Your task to perform on an android device: Add dell xps to the cart on walmart, then select checkout. Image 0: 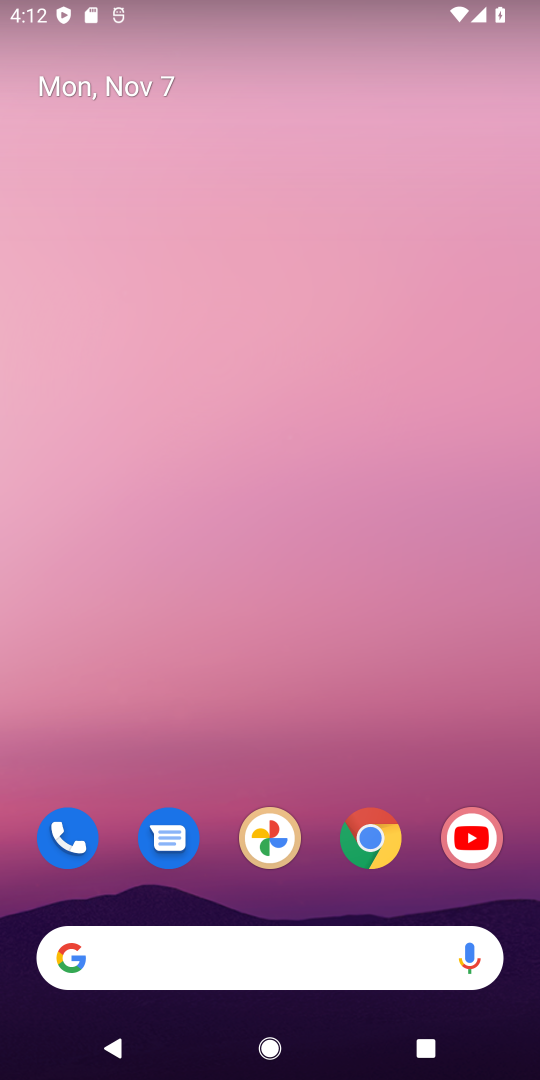
Step 0: click (355, 840)
Your task to perform on an android device: Add dell xps to the cart on walmart, then select checkout. Image 1: 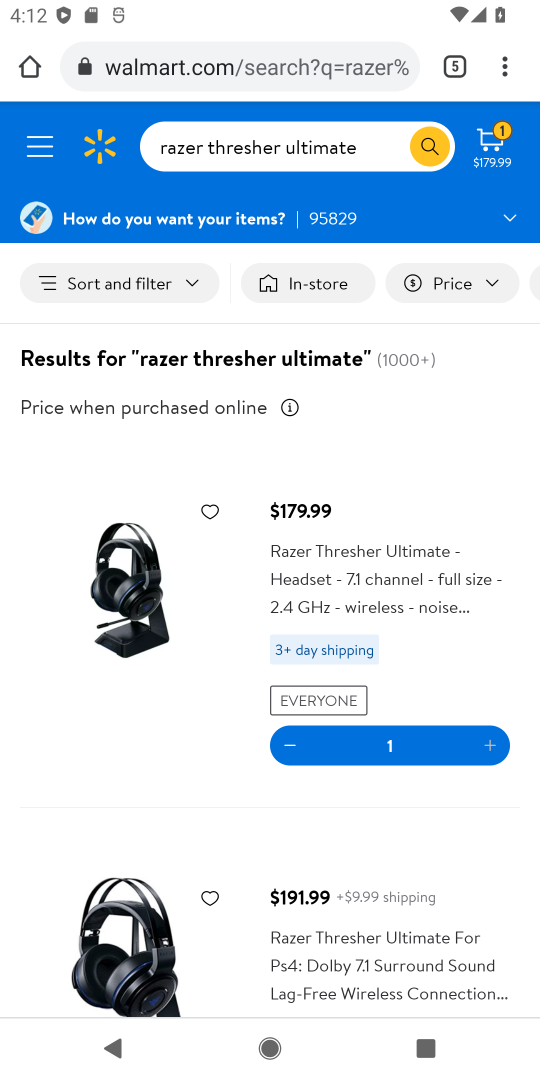
Step 1: click (298, 160)
Your task to perform on an android device: Add dell xps to the cart on walmart, then select checkout. Image 2: 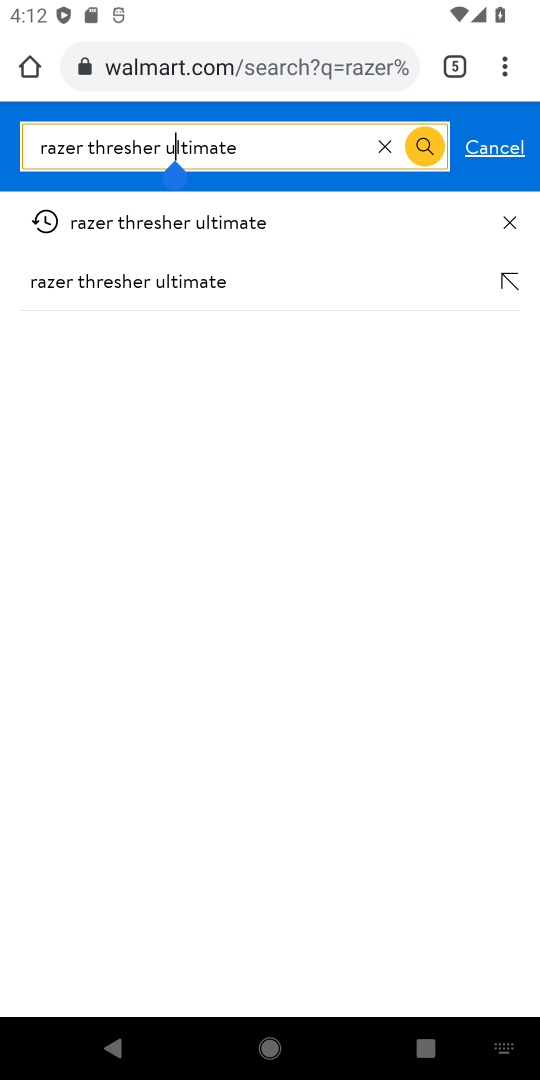
Step 2: click (386, 146)
Your task to perform on an android device: Add dell xps to the cart on walmart, then select checkout. Image 3: 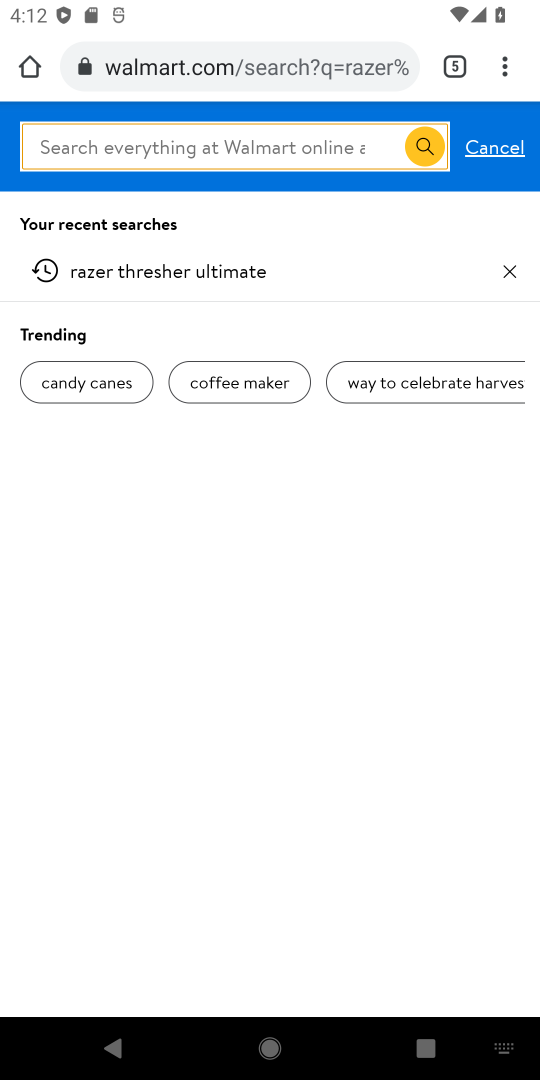
Step 3: type "dell xps"
Your task to perform on an android device: Add dell xps to the cart on walmart, then select checkout. Image 4: 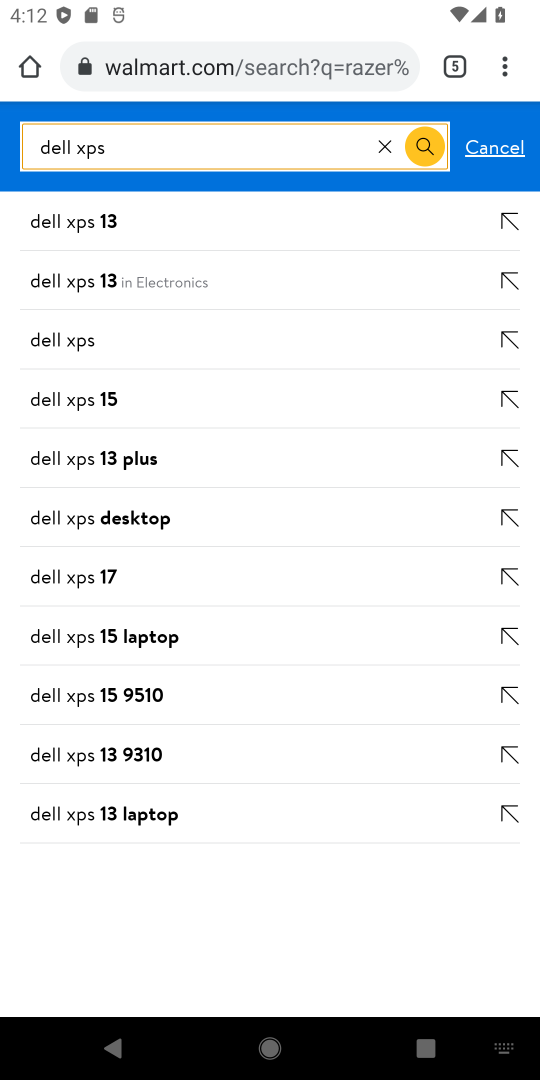
Step 4: click (38, 272)
Your task to perform on an android device: Add dell xps to the cart on walmart, then select checkout. Image 5: 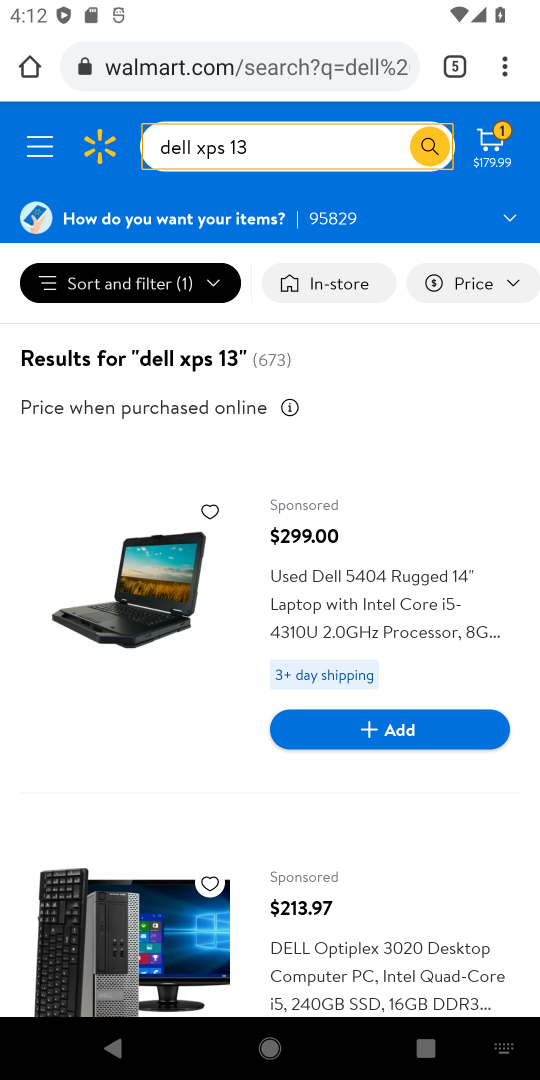
Step 5: drag from (426, 821) to (452, 473)
Your task to perform on an android device: Add dell xps to the cart on walmart, then select checkout. Image 6: 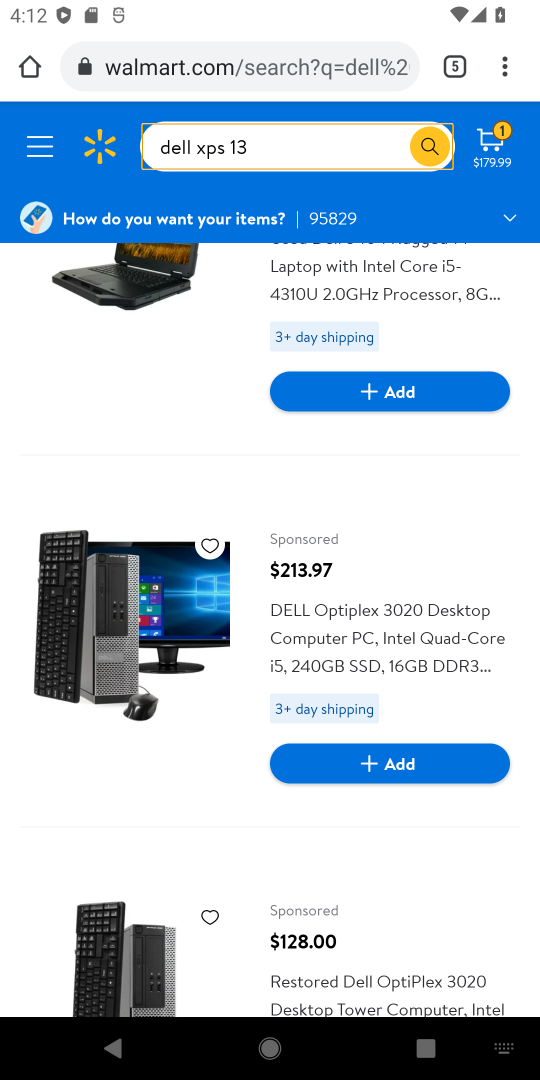
Step 6: click (416, 386)
Your task to perform on an android device: Add dell xps to the cart on walmart, then select checkout. Image 7: 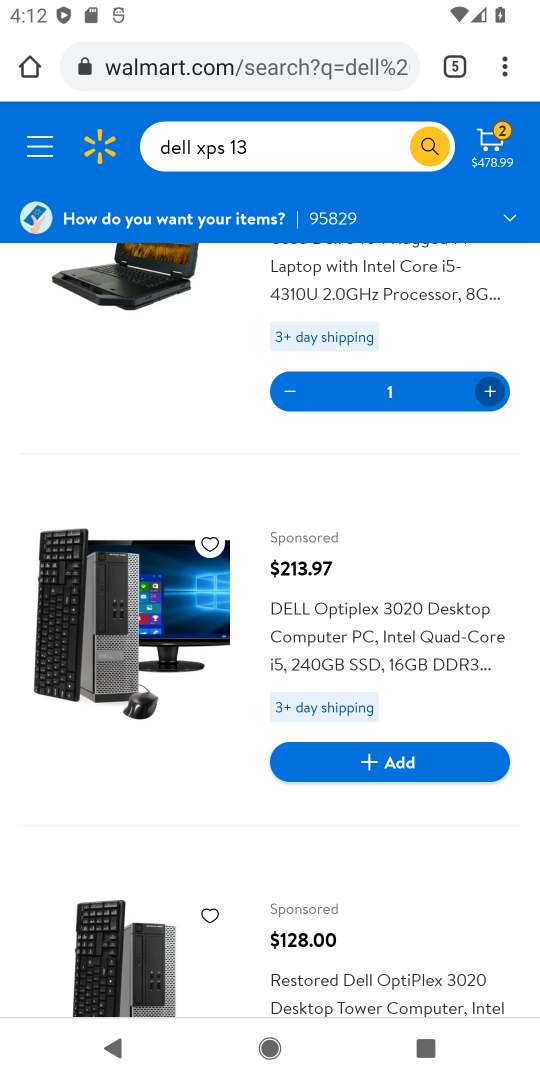
Step 7: click (496, 140)
Your task to perform on an android device: Add dell xps to the cart on walmart, then select checkout. Image 8: 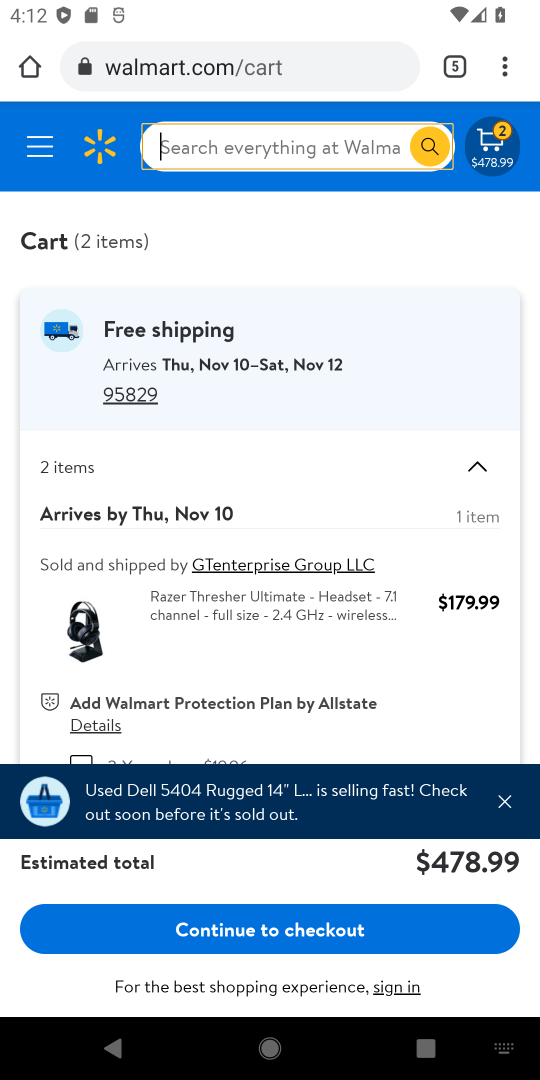
Step 8: click (236, 922)
Your task to perform on an android device: Add dell xps to the cart on walmart, then select checkout. Image 9: 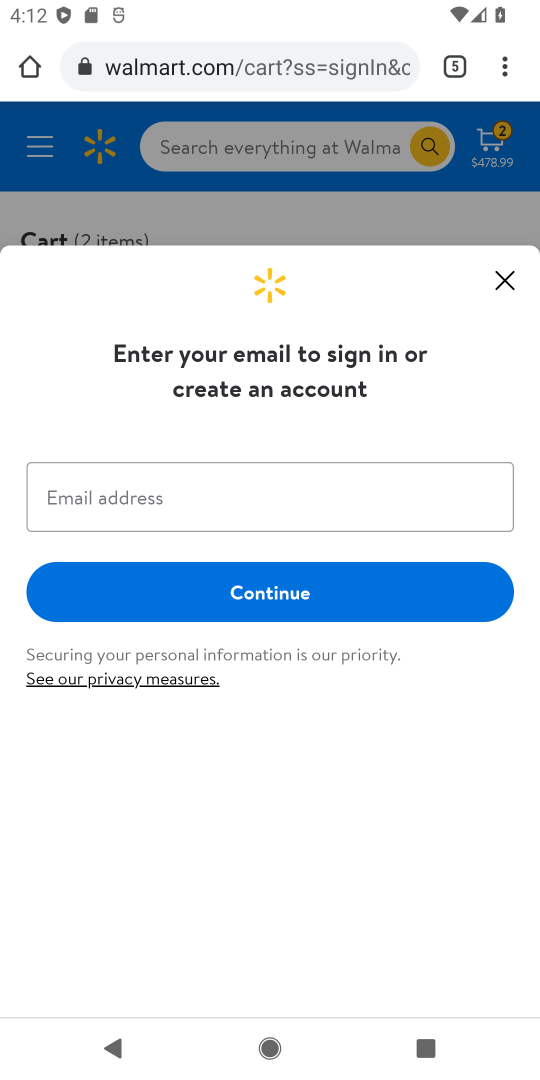
Step 9: task complete